Your task to perform on an android device: open app "Duolingo: language lessons" (install if not already installed) Image 0: 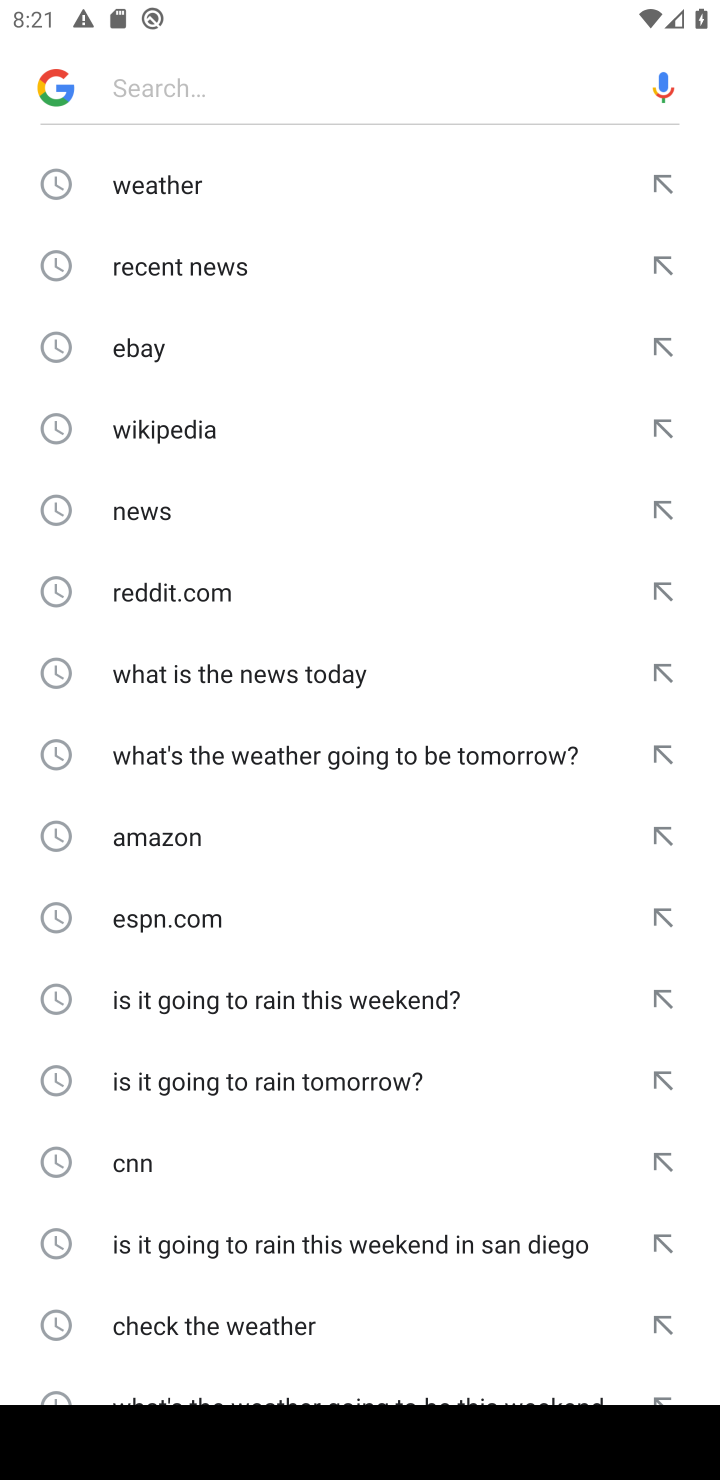
Step 0: press home button
Your task to perform on an android device: open app "Duolingo: language lessons" (install if not already installed) Image 1: 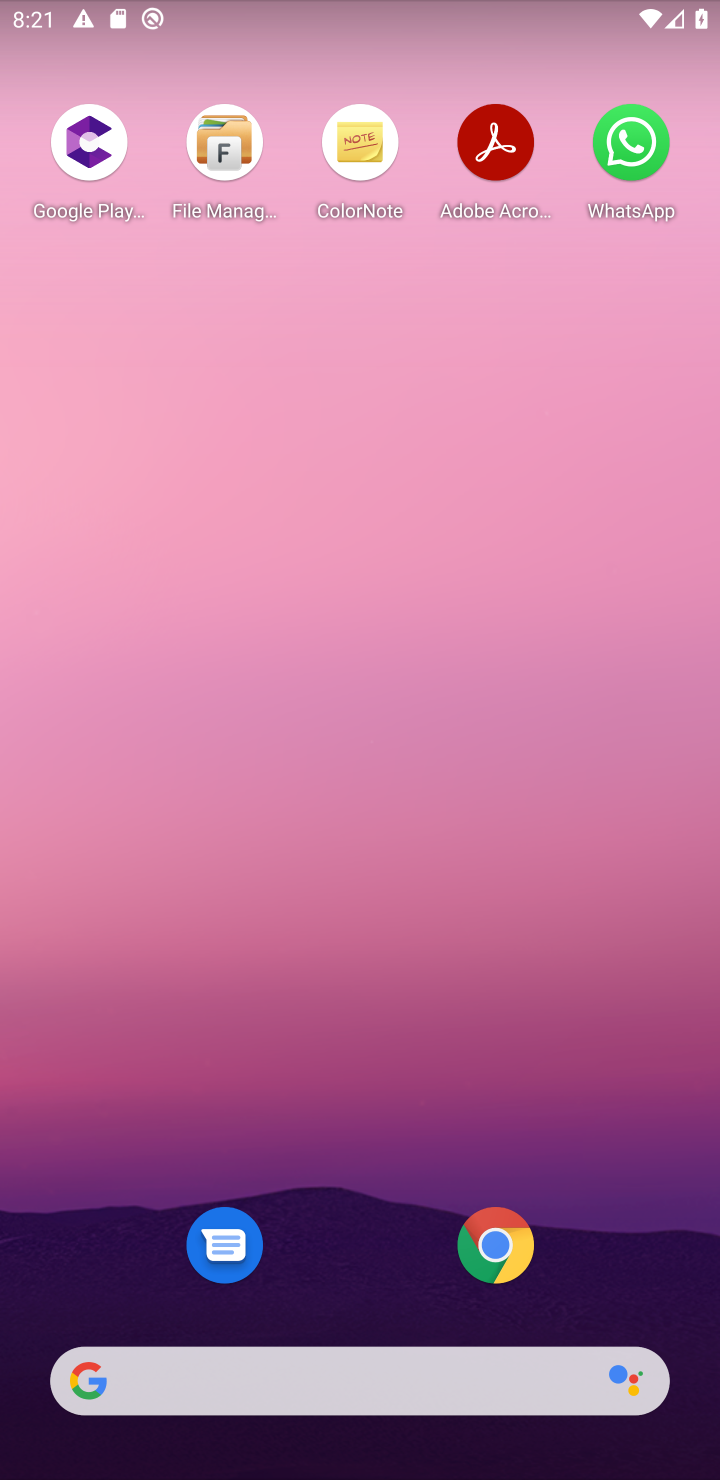
Step 1: drag from (575, 1161) to (529, 106)
Your task to perform on an android device: open app "Duolingo: language lessons" (install if not already installed) Image 2: 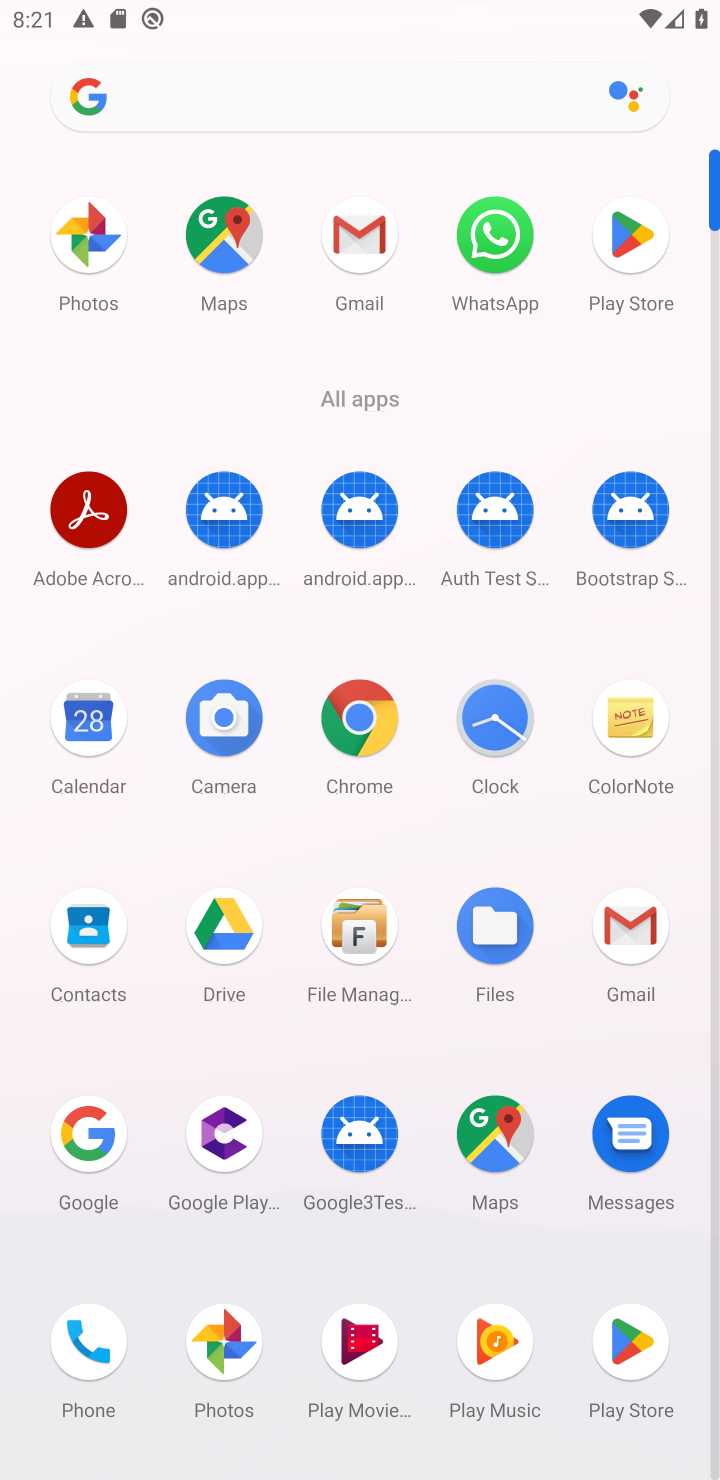
Step 2: click (623, 249)
Your task to perform on an android device: open app "Duolingo: language lessons" (install if not already installed) Image 3: 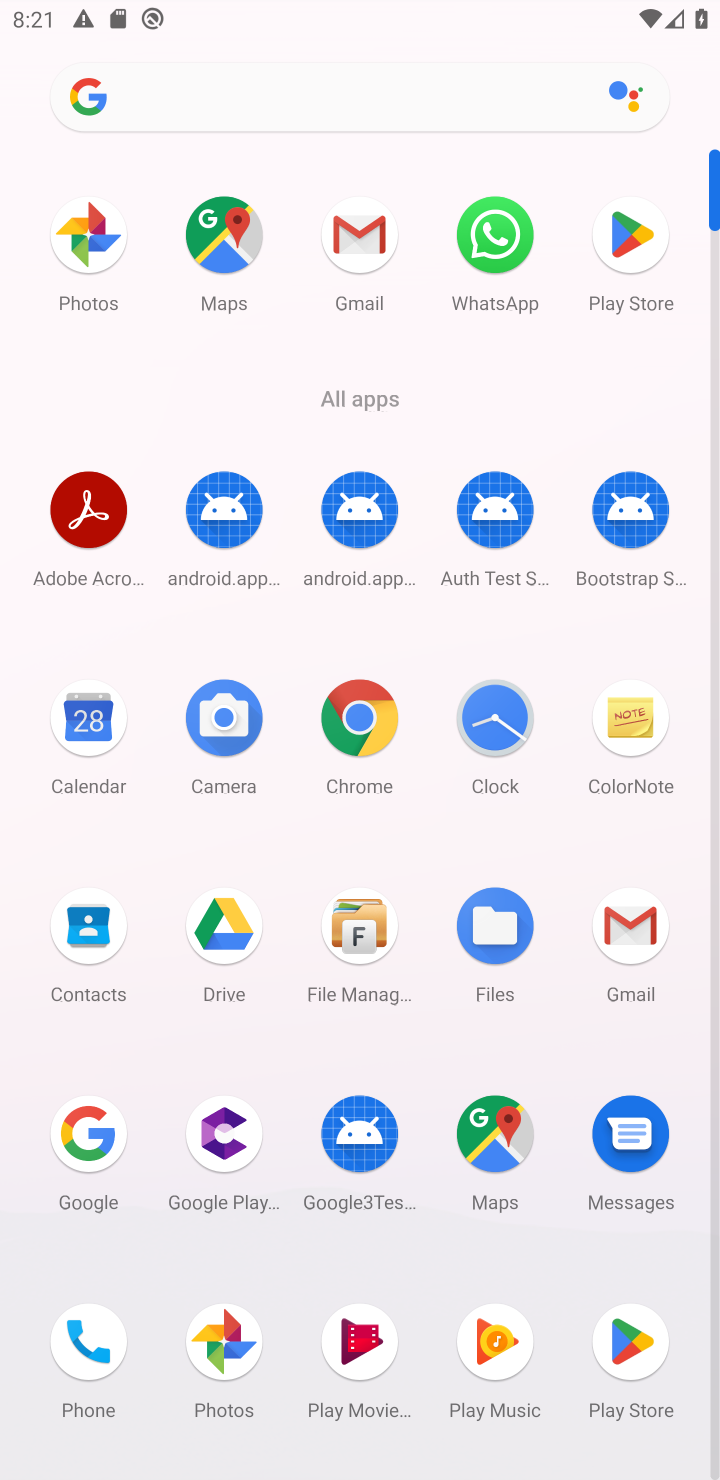
Step 3: click (623, 249)
Your task to perform on an android device: open app "Duolingo: language lessons" (install if not already installed) Image 4: 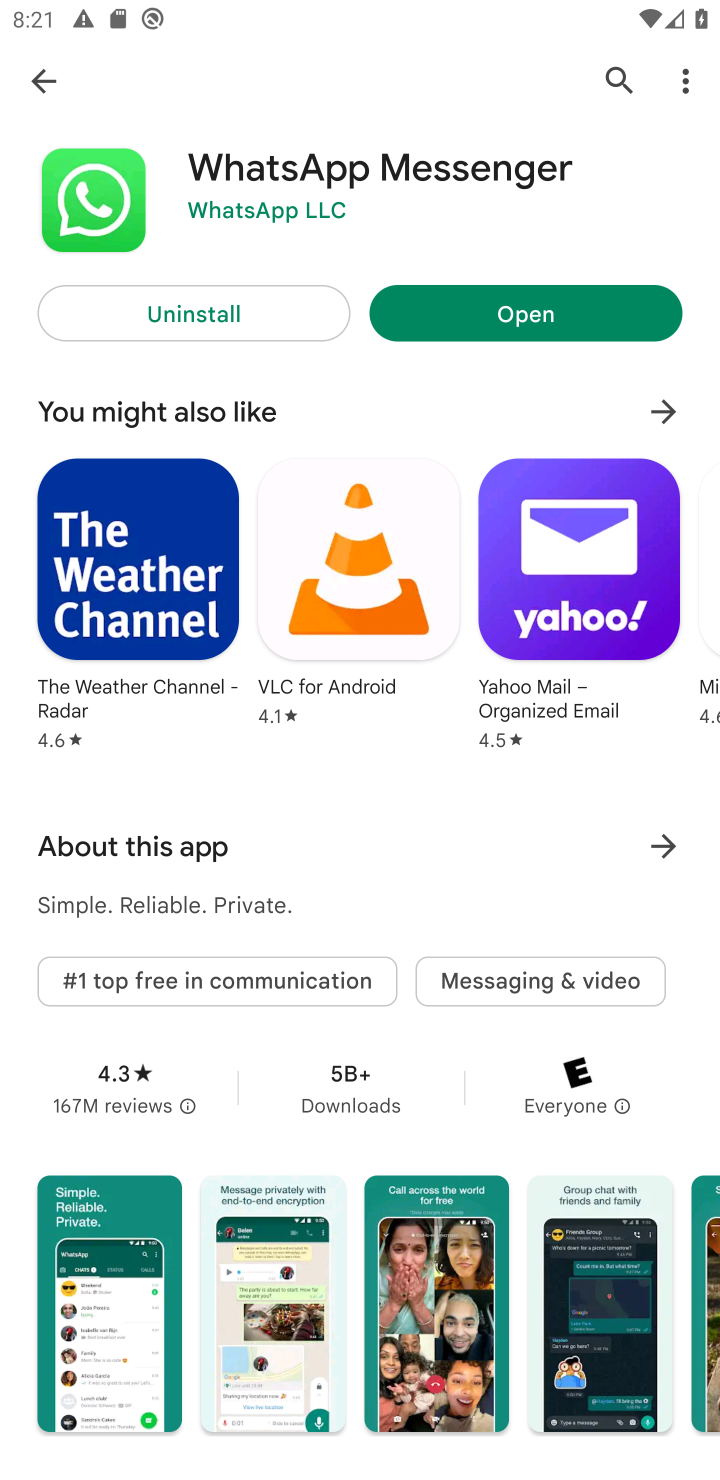
Step 4: click (620, 61)
Your task to perform on an android device: open app "Duolingo: language lessons" (install if not already installed) Image 5: 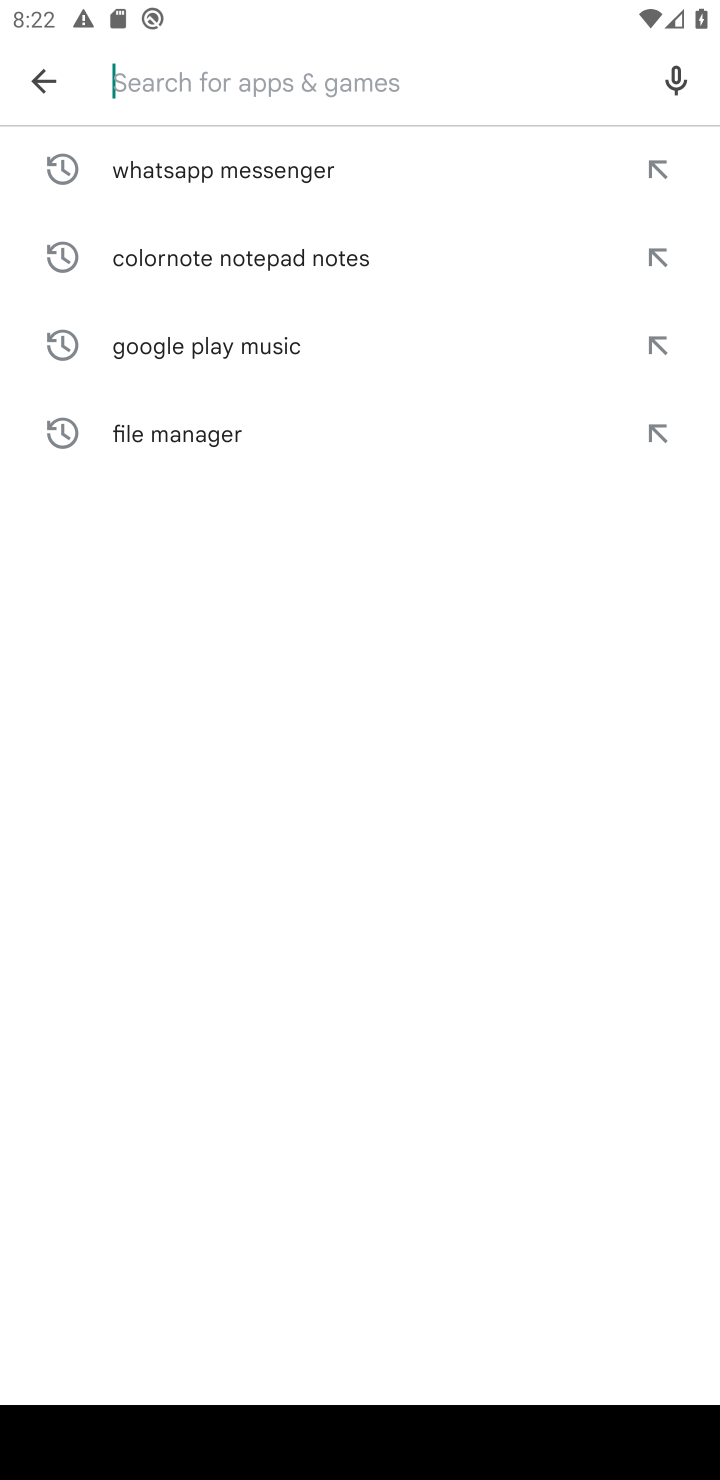
Step 5: type "Duolingo: language lessons"
Your task to perform on an android device: open app "Duolingo: language lessons" (install if not already installed) Image 6: 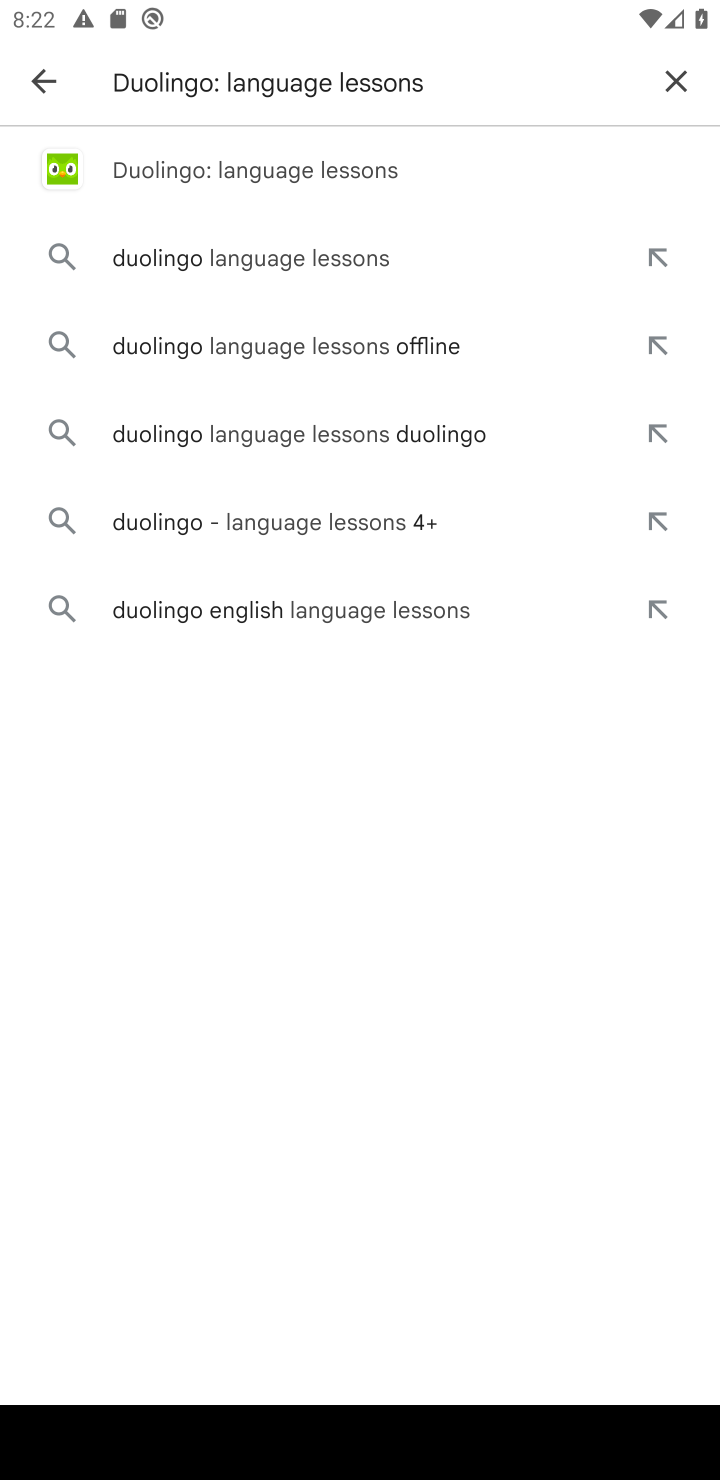
Step 6: click (216, 182)
Your task to perform on an android device: open app "Duolingo: language lessons" (install if not already installed) Image 7: 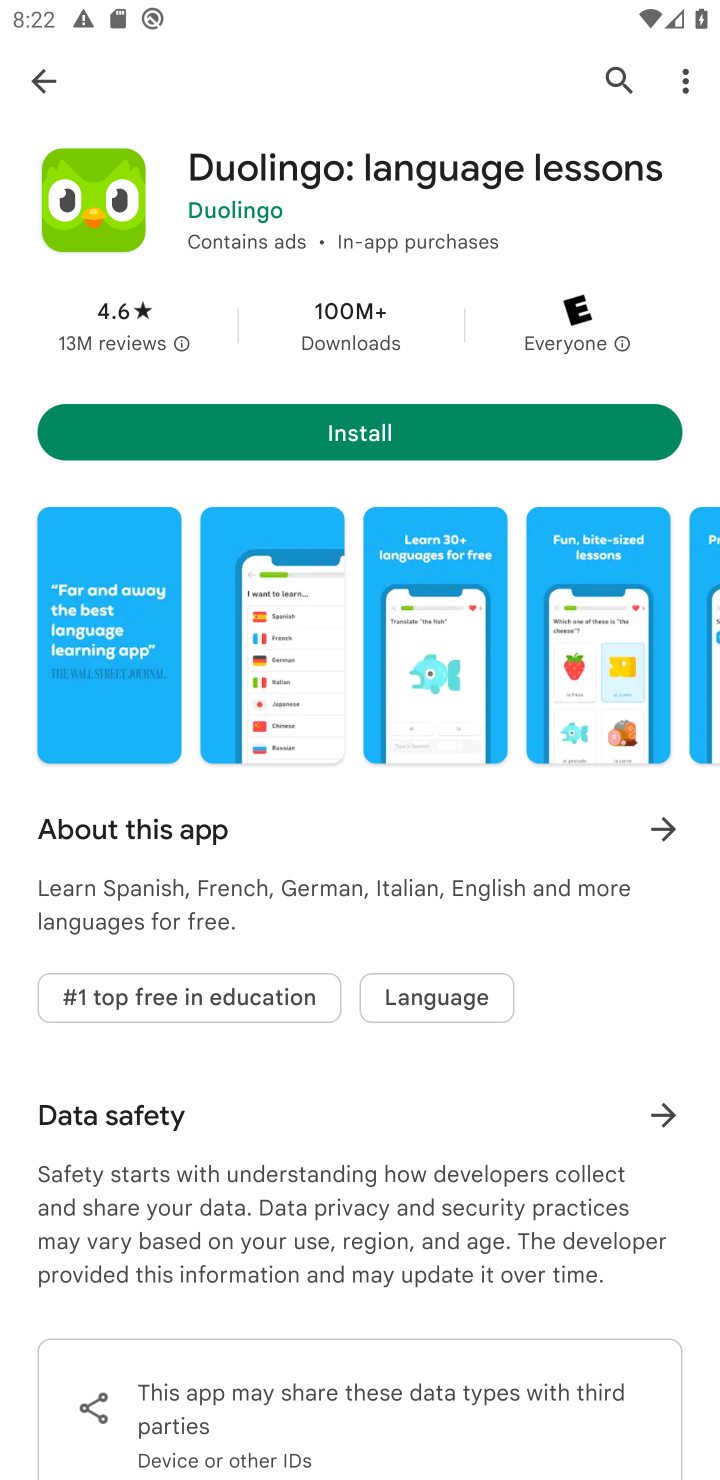
Step 7: click (257, 446)
Your task to perform on an android device: open app "Duolingo: language lessons" (install if not already installed) Image 8: 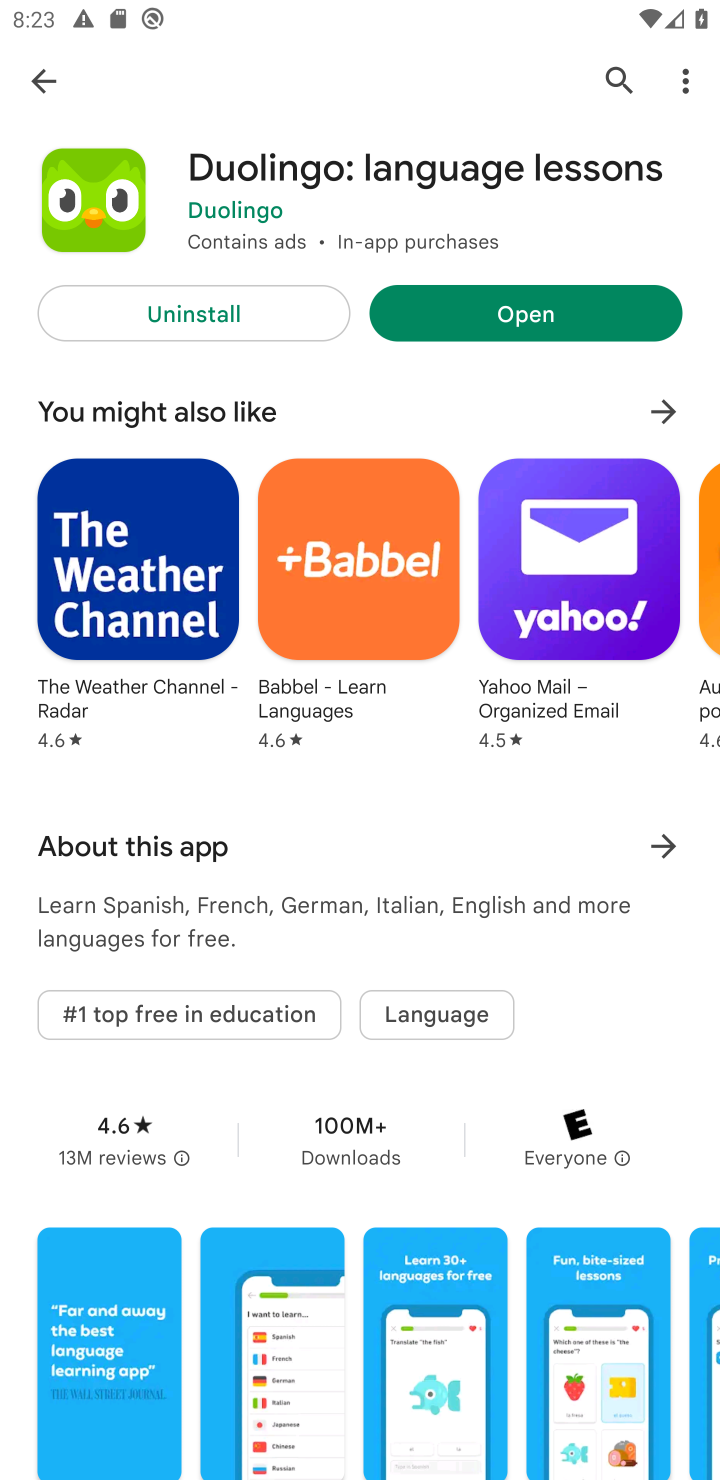
Step 8: click (608, 316)
Your task to perform on an android device: open app "Duolingo: language lessons" (install if not already installed) Image 9: 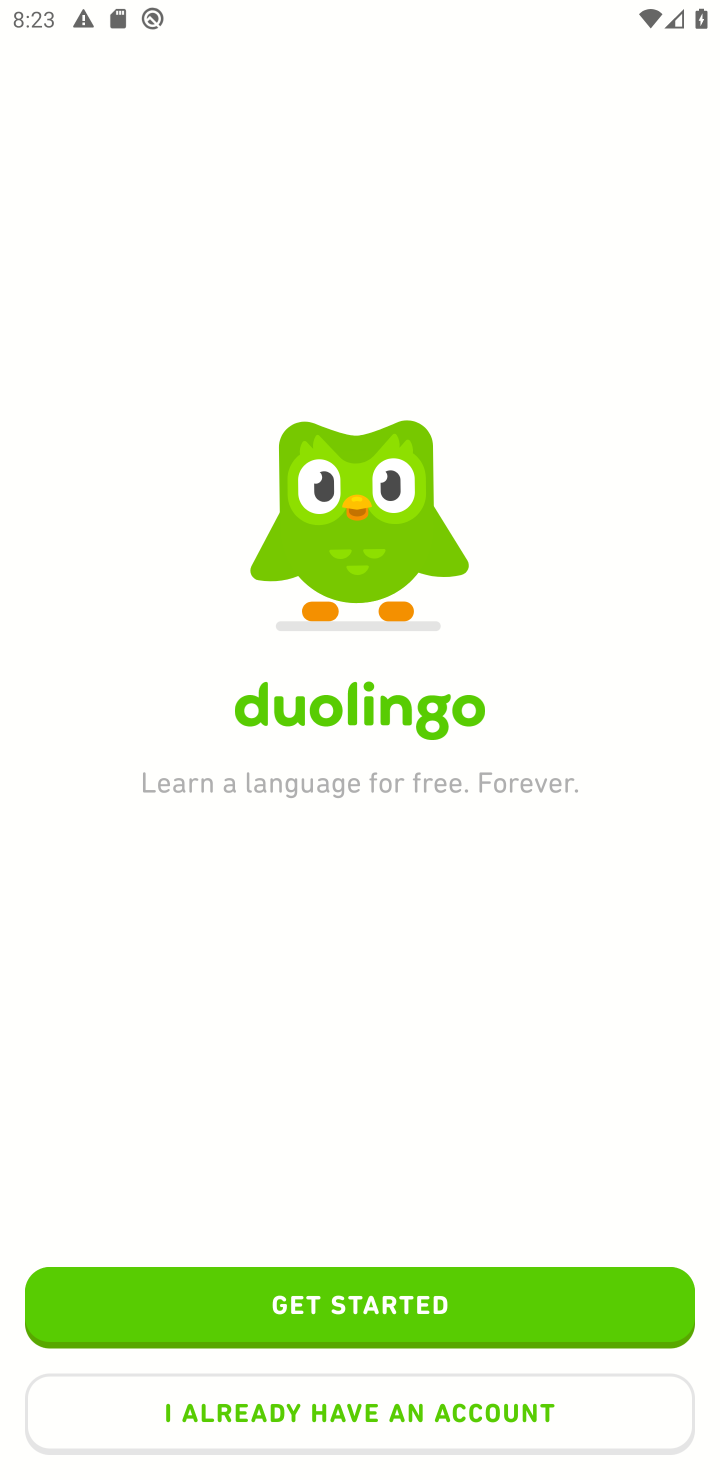
Step 9: task complete